Your task to perform on an android device: turn smart compose on in the gmail app Image 0: 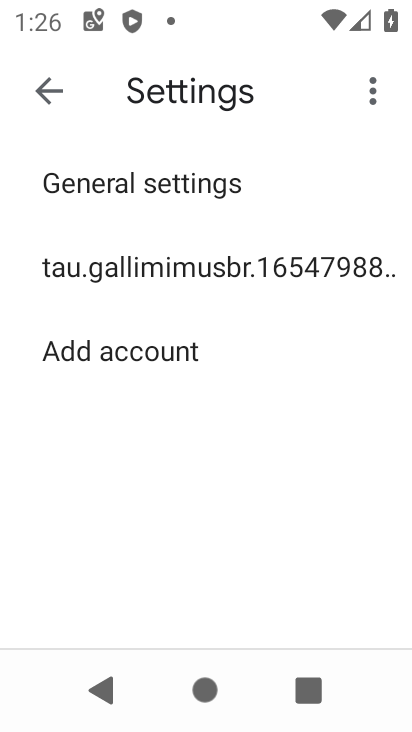
Step 0: press home button
Your task to perform on an android device: turn smart compose on in the gmail app Image 1: 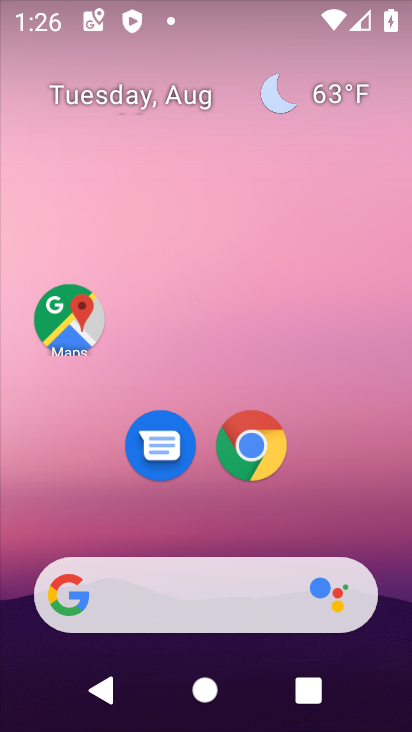
Step 1: drag from (209, 532) to (259, 24)
Your task to perform on an android device: turn smart compose on in the gmail app Image 2: 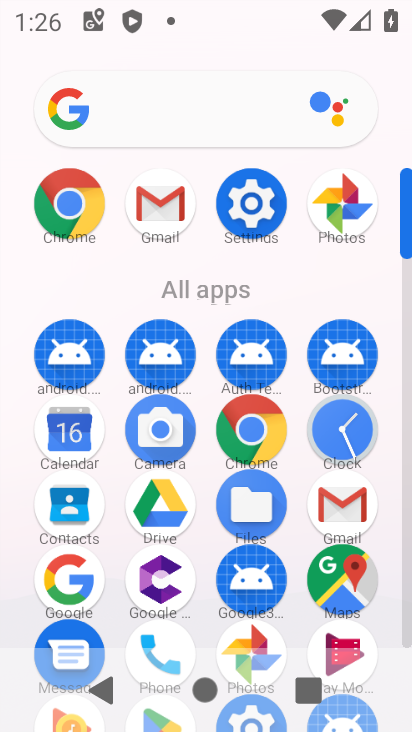
Step 2: click (344, 496)
Your task to perform on an android device: turn smart compose on in the gmail app Image 3: 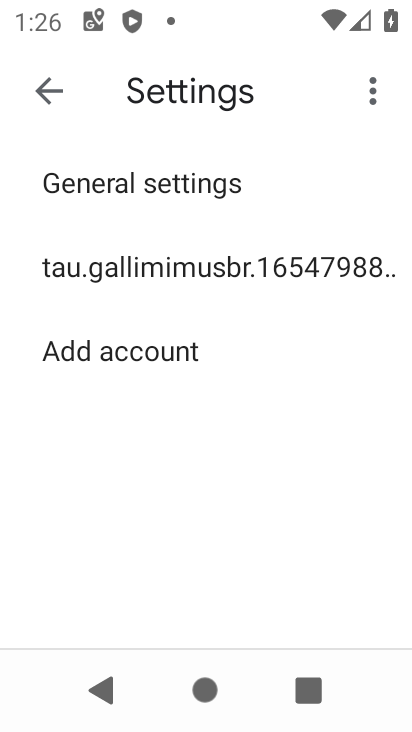
Step 3: click (238, 269)
Your task to perform on an android device: turn smart compose on in the gmail app Image 4: 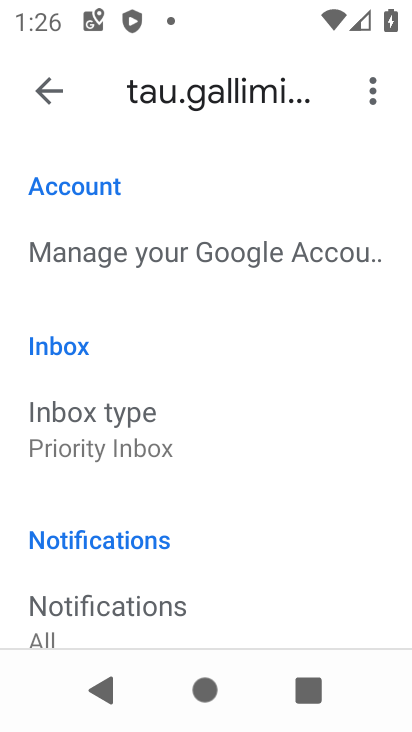
Step 4: task complete